Your task to perform on an android device: Check the news Image 0: 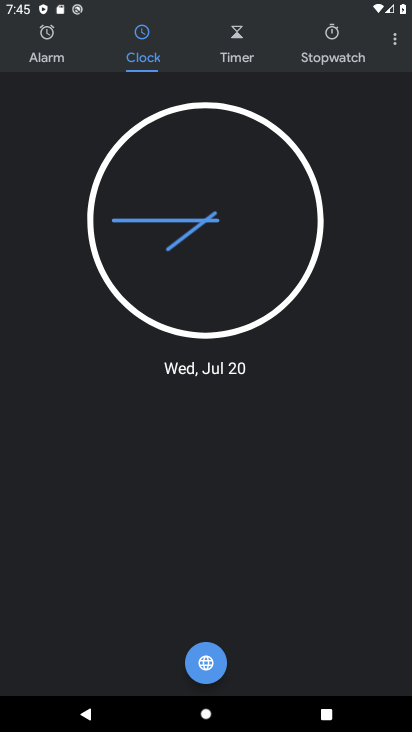
Step 0: press home button
Your task to perform on an android device: Check the news Image 1: 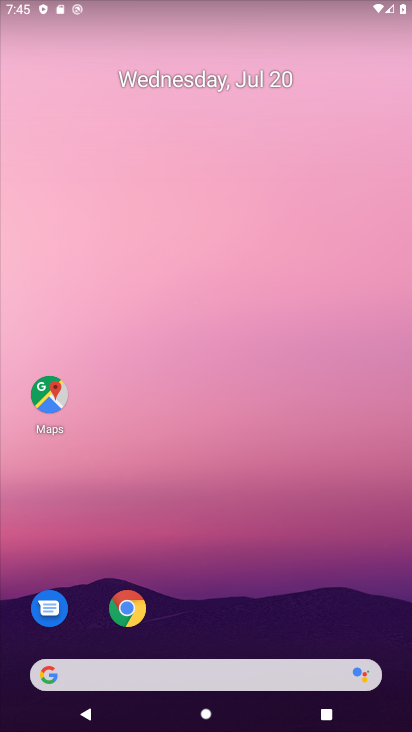
Step 1: drag from (175, 609) to (182, 73)
Your task to perform on an android device: Check the news Image 2: 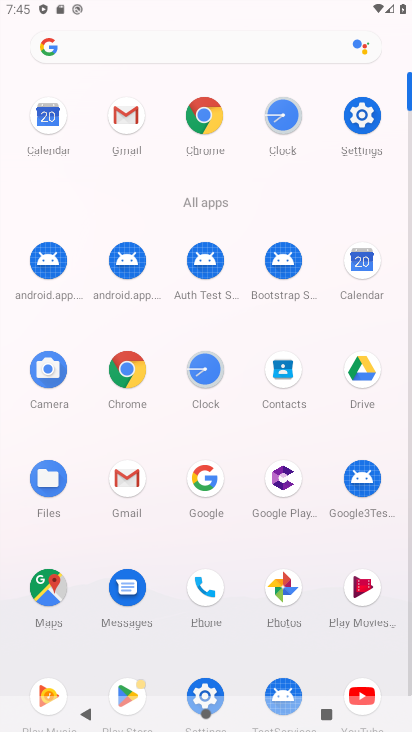
Step 2: click (163, 44)
Your task to perform on an android device: Check the news Image 3: 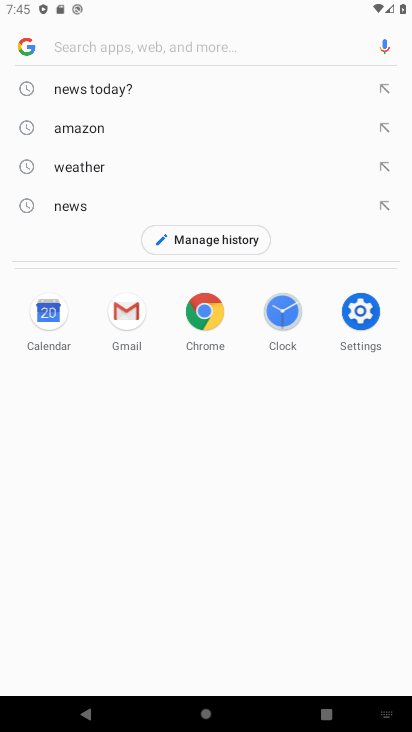
Step 3: type "news"
Your task to perform on an android device: Check the news Image 4: 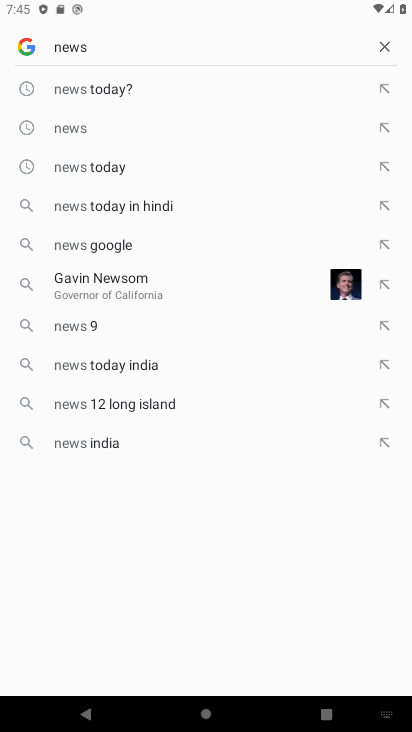
Step 4: click (79, 142)
Your task to perform on an android device: Check the news Image 5: 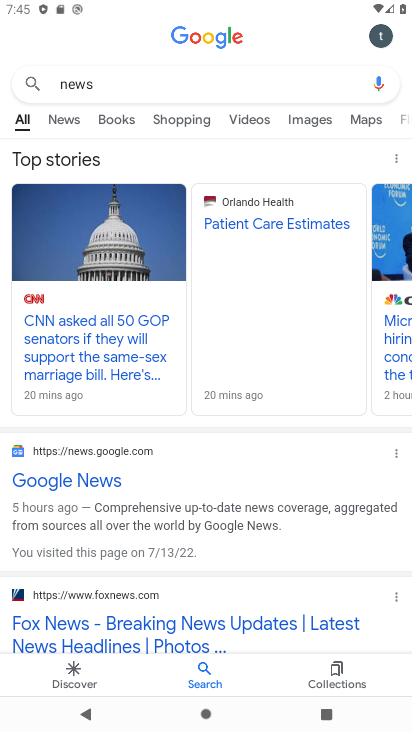
Step 5: task complete